Your task to perform on an android device: toggle sleep mode Image 0: 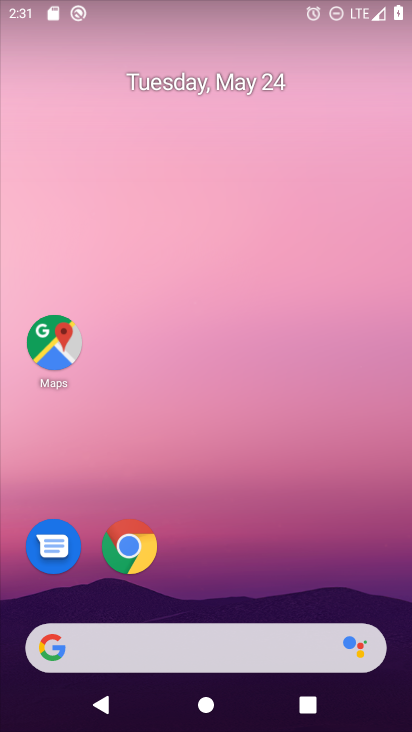
Step 0: drag from (315, 642) to (316, 63)
Your task to perform on an android device: toggle sleep mode Image 1: 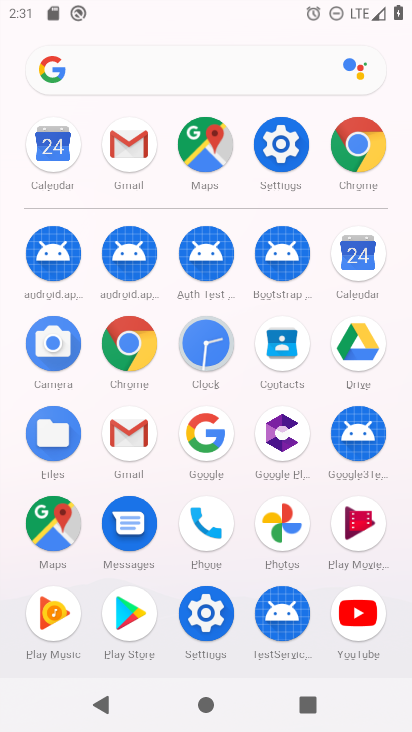
Step 1: click (286, 124)
Your task to perform on an android device: toggle sleep mode Image 2: 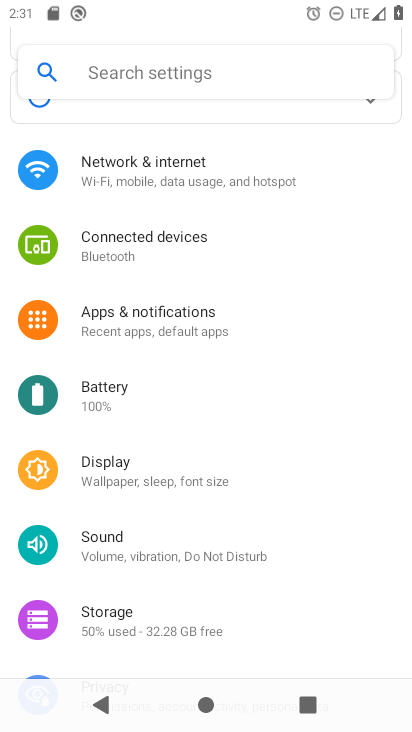
Step 2: click (89, 466)
Your task to perform on an android device: toggle sleep mode Image 3: 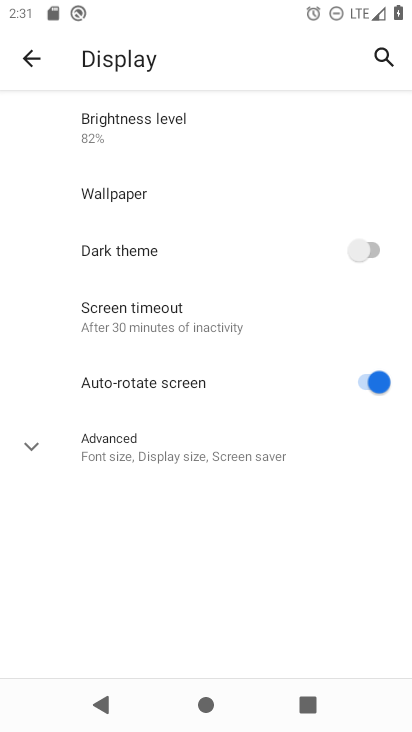
Step 3: task complete